Your task to perform on an android device: change the clock display to digital Image 0: 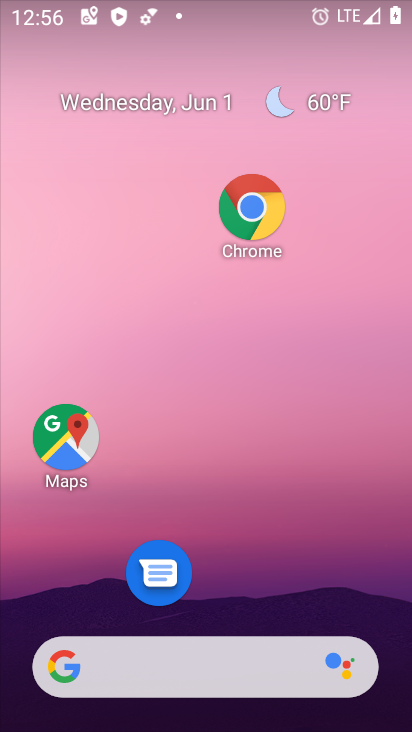
Step 0: drag from (236, 588) to (236, 176)
Your task to perform on an android device: change the clock display to digital Image 1: 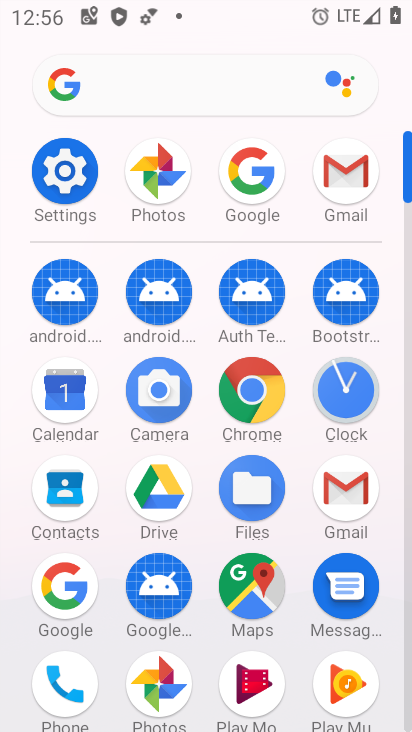
Step 1: click (342, 399)
Your task to perform on an android device: change the clock display to digital Image 2: 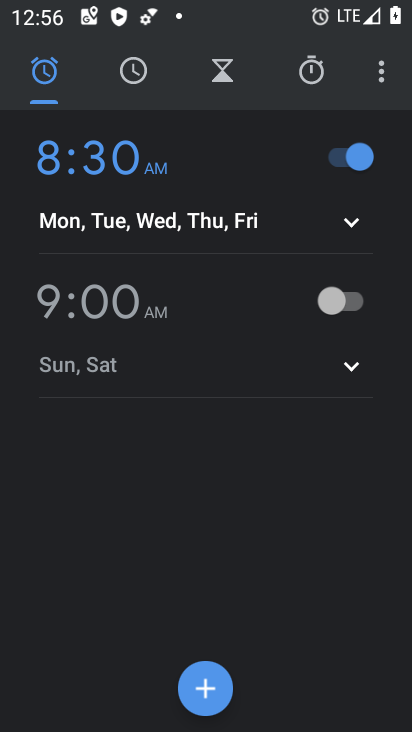
Step 2: click (372, 79)
Your task to perform on an android device: change the clock display to digital Image 3: 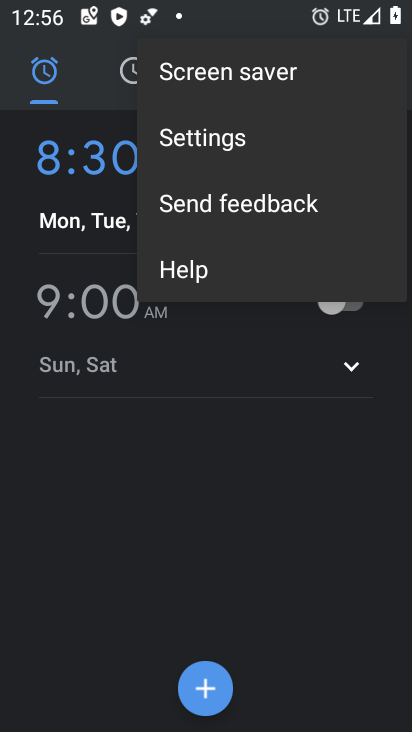
Step 3: click (239, 137)
Your task to perform on an android device: change the clock display to digital Image 4: 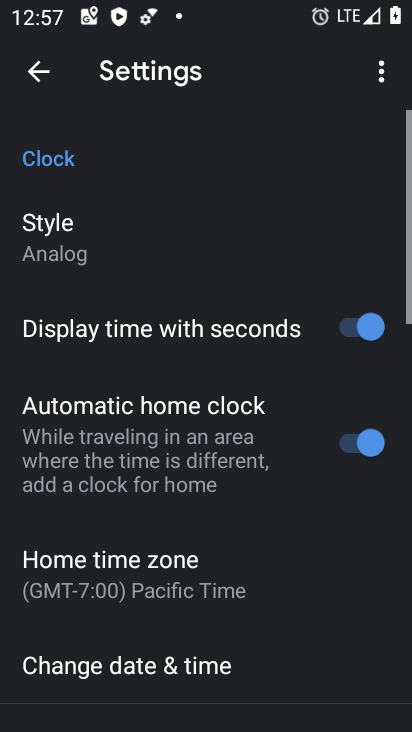
Step 4: click (129, 231)
Your task to perform on an android device: change the clock display to digital Image 5: 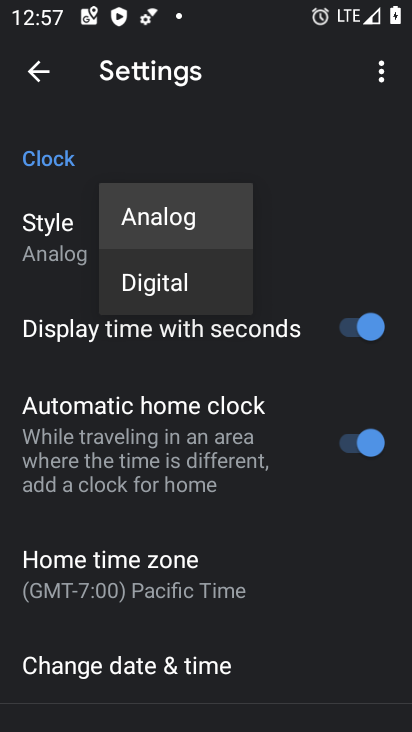
Step 5: click (142, 279)
Your task to perform on an android device: change the clock display to digital Image 6: 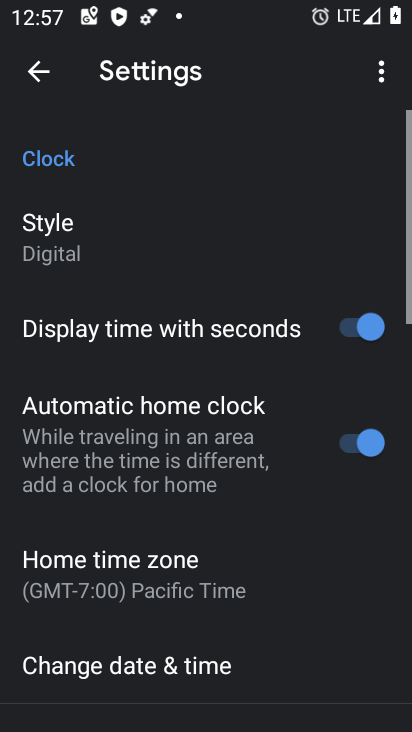
Step 6: task complete